Your task to perform on an android device: Open CNN.com Image 0: 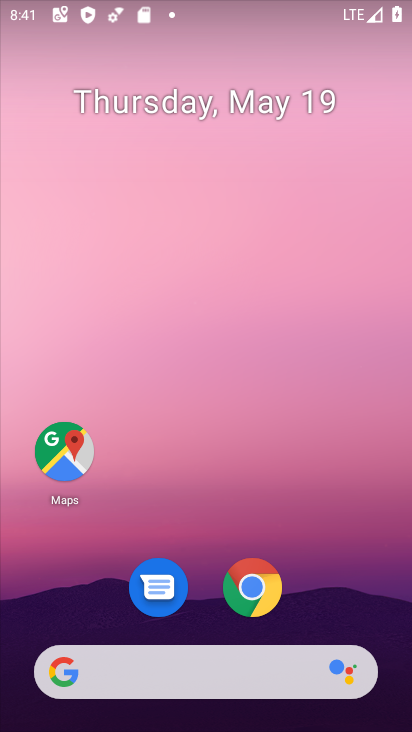
Step 0: drag from (325, 507) to (214, 48)
Your task to perform on an android device: Open CNN.com Image 1: 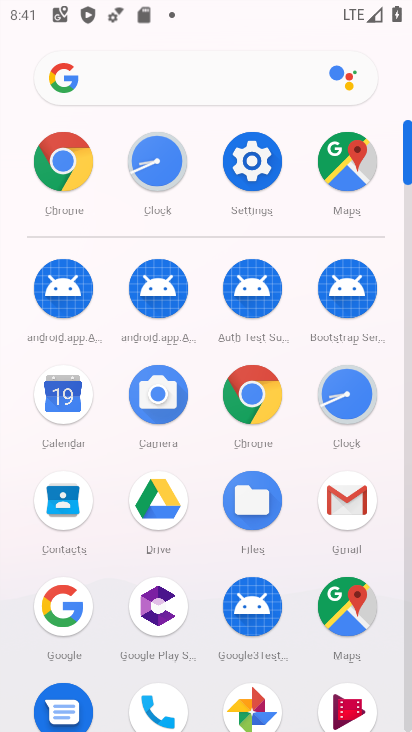
Step 1: drag from (12, 530) to (16, 244)
Your task to perform on an android device: Open CNN.com Image 2: 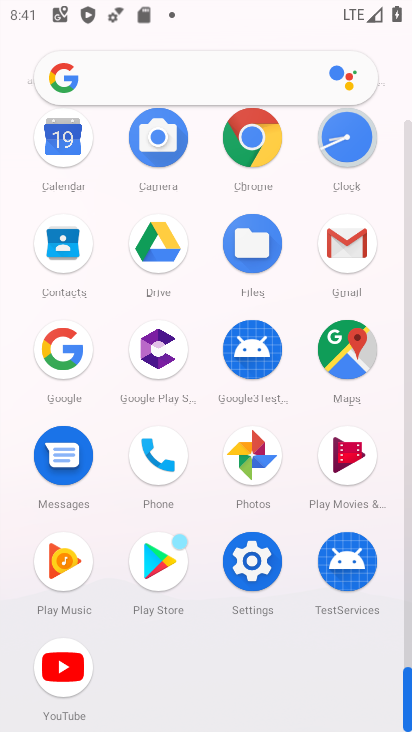
Step 2: click (256, 136)
Your task to perform on an android device: Open CNN.com Image 3: 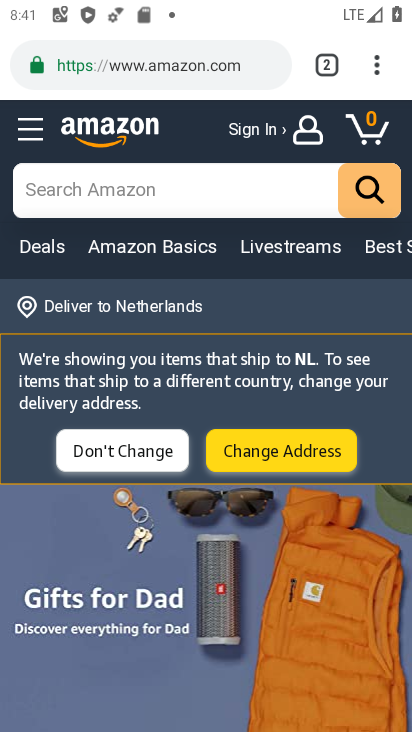
Step 3: click (136, 60)
Your task to perform on an android device: Open CNN.com Image 4: 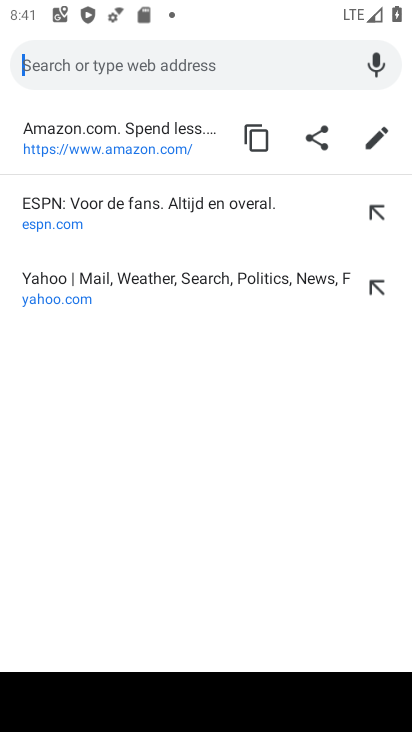
Step 4: type "CNN.com"
Your task to perform on an android device: Open CNN.com Image 5: 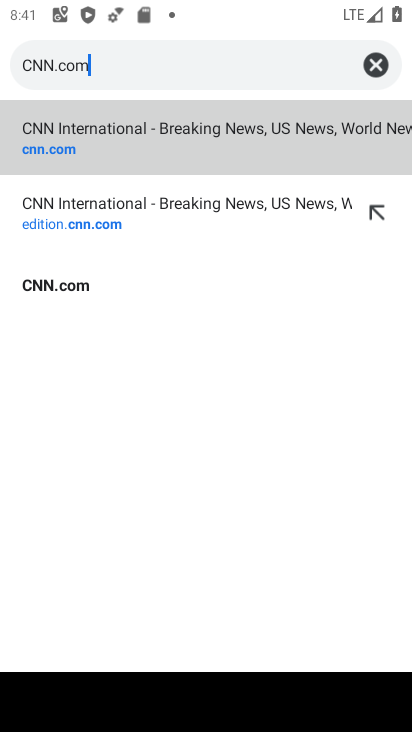
Step 5: type ""
Your task to perform on an android device: Open CNN.com Image 6: 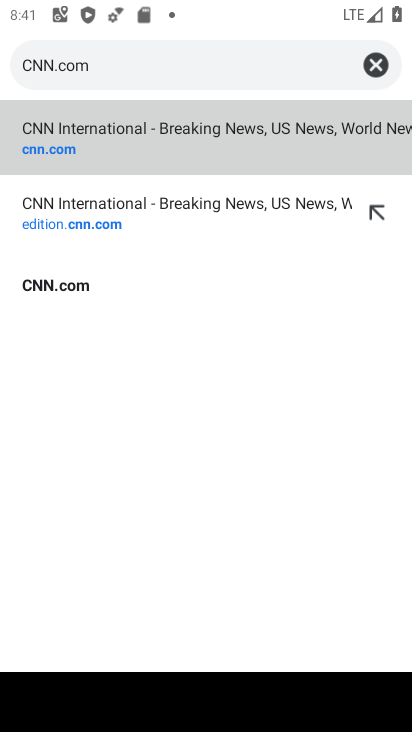
Step 6: click (122, 148)
Your task to perform on an android device: Open CNN.com Image 7: 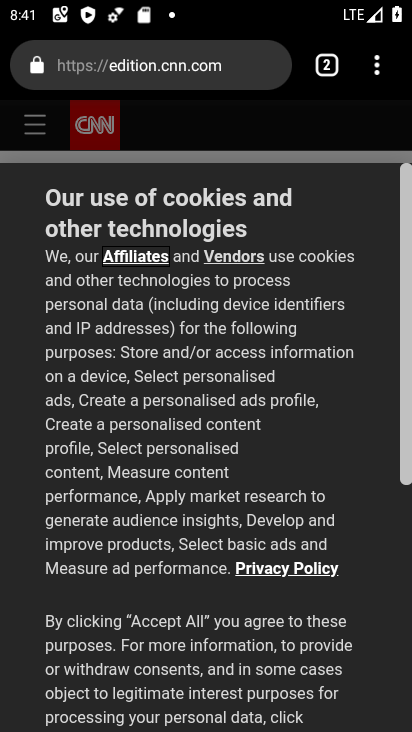
Step 7: task complete